Your task to perform on an android device: open sync settings in chrome Image 0: 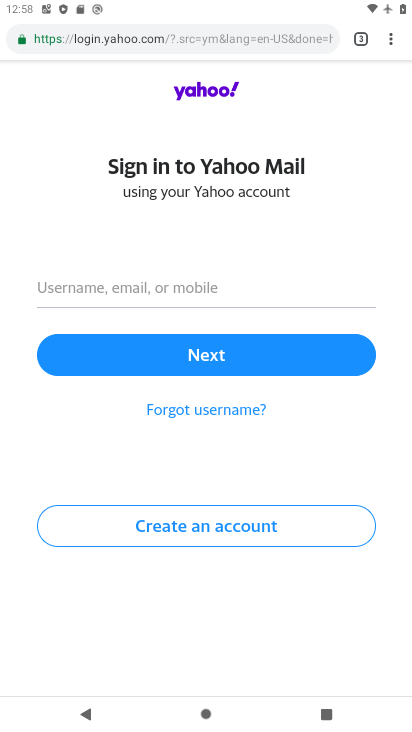
Step 0: press home button
Your task to perform on an android device: open sync settings in chrome Image 1: 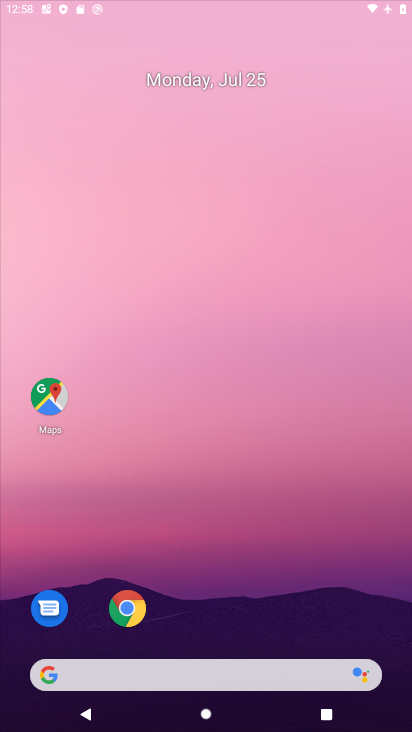
Step 1: click (325, 136)
Your task to perform on an android device: open sync settings in chrome Image 2: 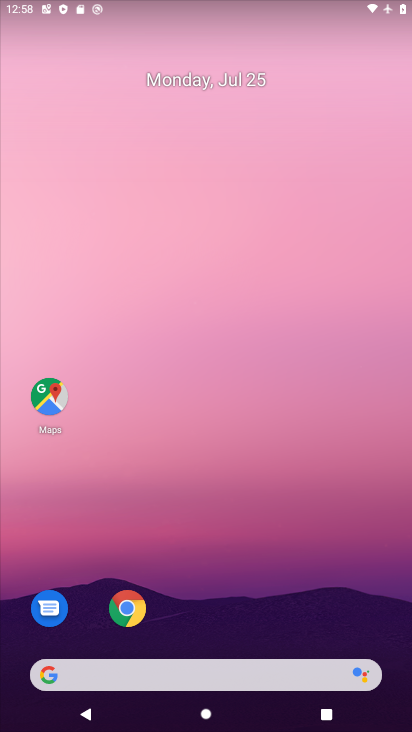
Step 2: drag from (181, 660) to (182, 246)
Your task to perform on an android device: open sync settings in chrome Image 3: 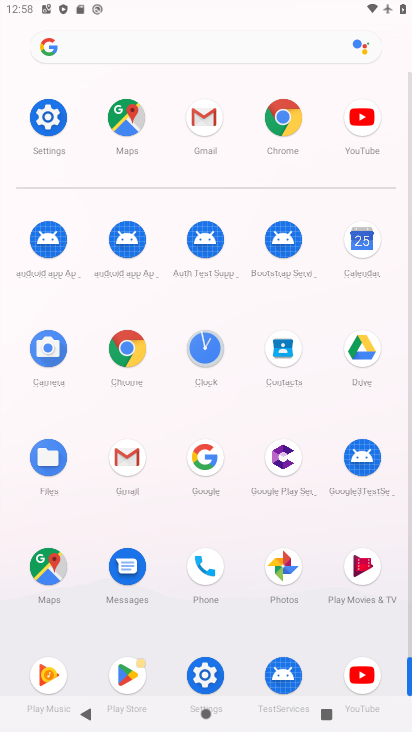
Step 3: click (290, 138)
Your task to perform on an android device: open sync settings in chrome Image 4: 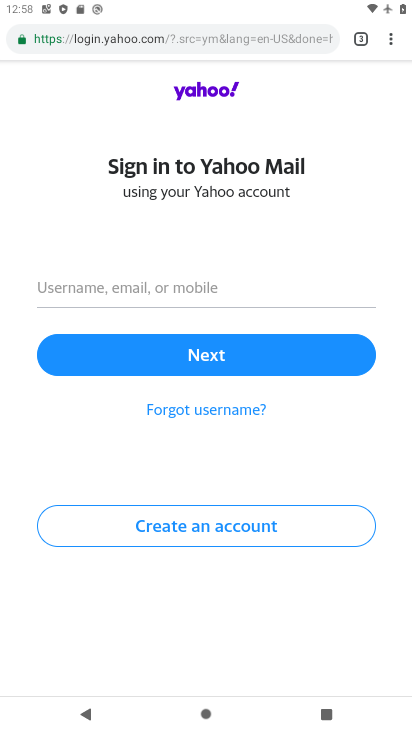
Step 4: click (394, 42)
Your task to perform on an android device: open sync settings in chrome Image 5: 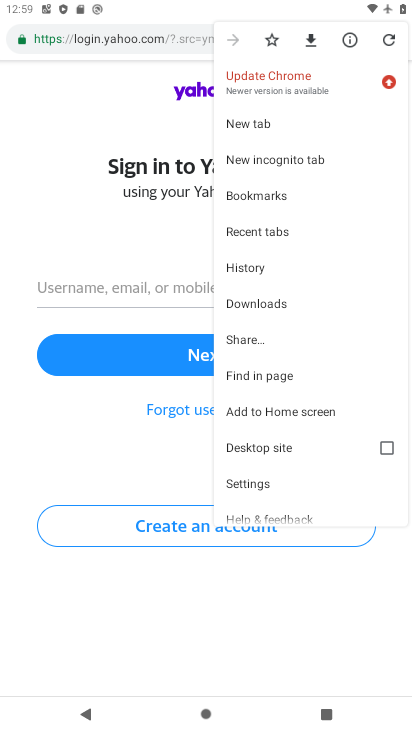
Step 5: click (252, 491)
Your task to perform on an android device: open sync settings in chrome Image 6: 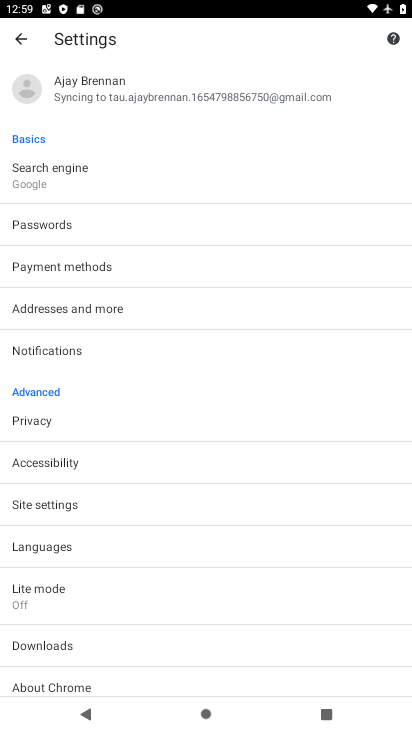
Step 6: click (89, 94)
Your task to perform on an android device: open sync settings in chrome Image 7: 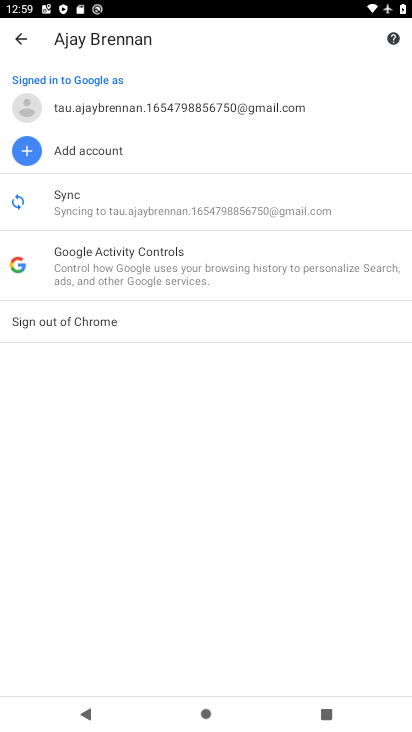
Step 7: click (125, 202)
Your task to perform on an android device: open sync settings in chrome Image 8: 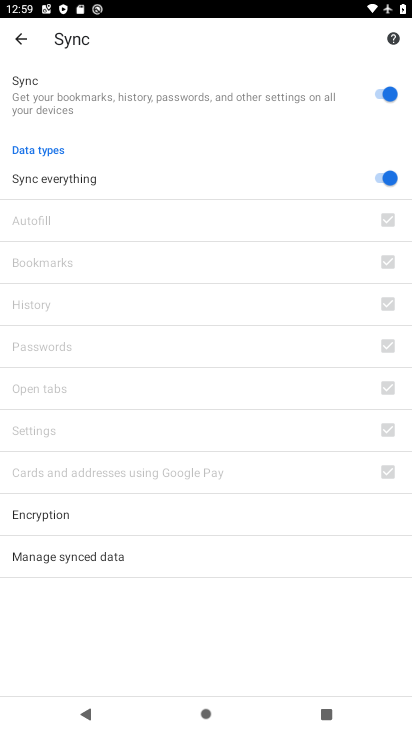
Step 8: task complete